Your task to perform on an android device: Turn off the flashlight Image 0: 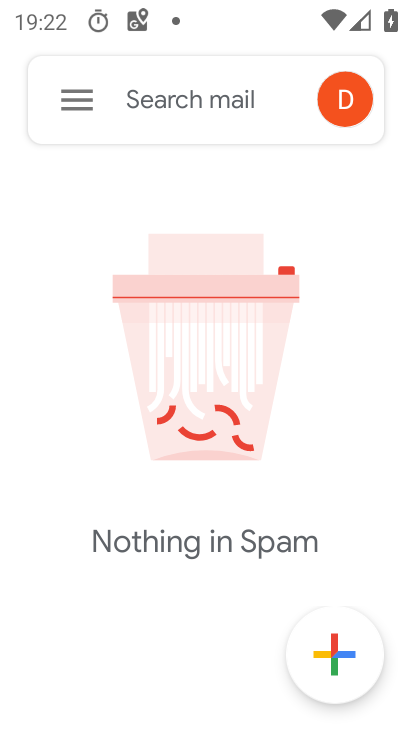
Step 0: press home button
Your task to perform on an android device: Turn off the flashlight Image 1: 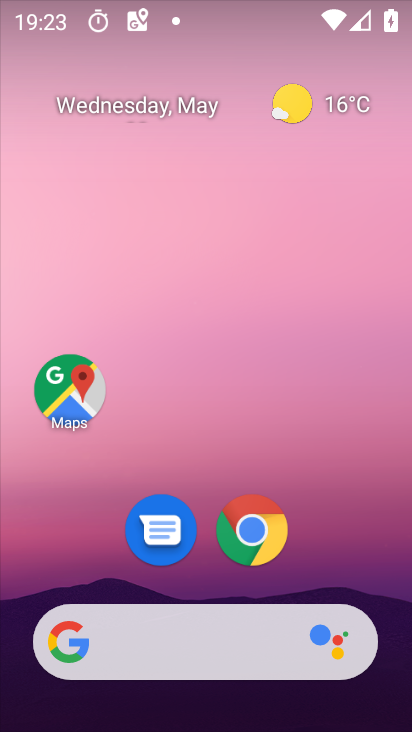
Step 1: drag from (187, 561) to (134, 93)
Your task to perform on an android device: Turn off the flashlight Image 2: 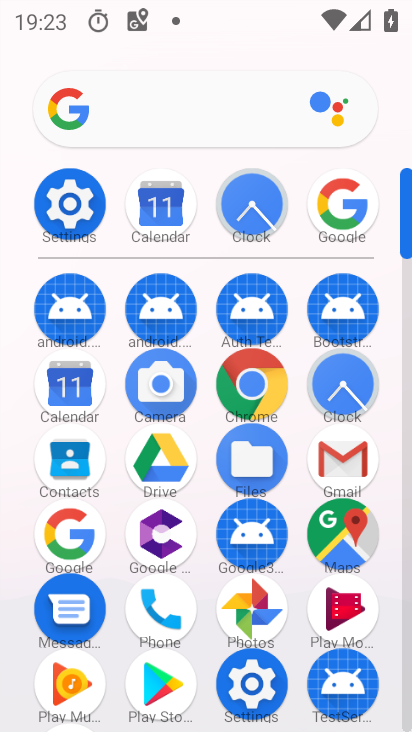
Step 2: click (74, 204)
Your task to perform on an android device: Turn off the flashlight Image 3: 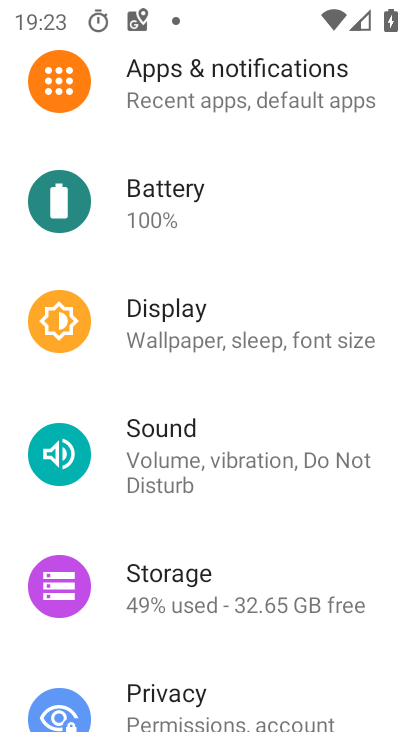
Step 3: click (216, 326)
Your task to perform on an android device: Turn off the flashlight Image 4: 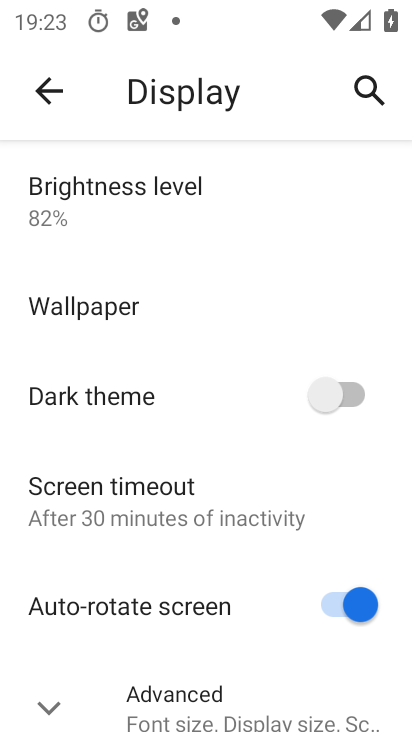
Step 4: task complete